Your task to perform on an android device: Show the shopping cart on costco.com. Add "energizer triple a" to the cart on costco.com Image 0: 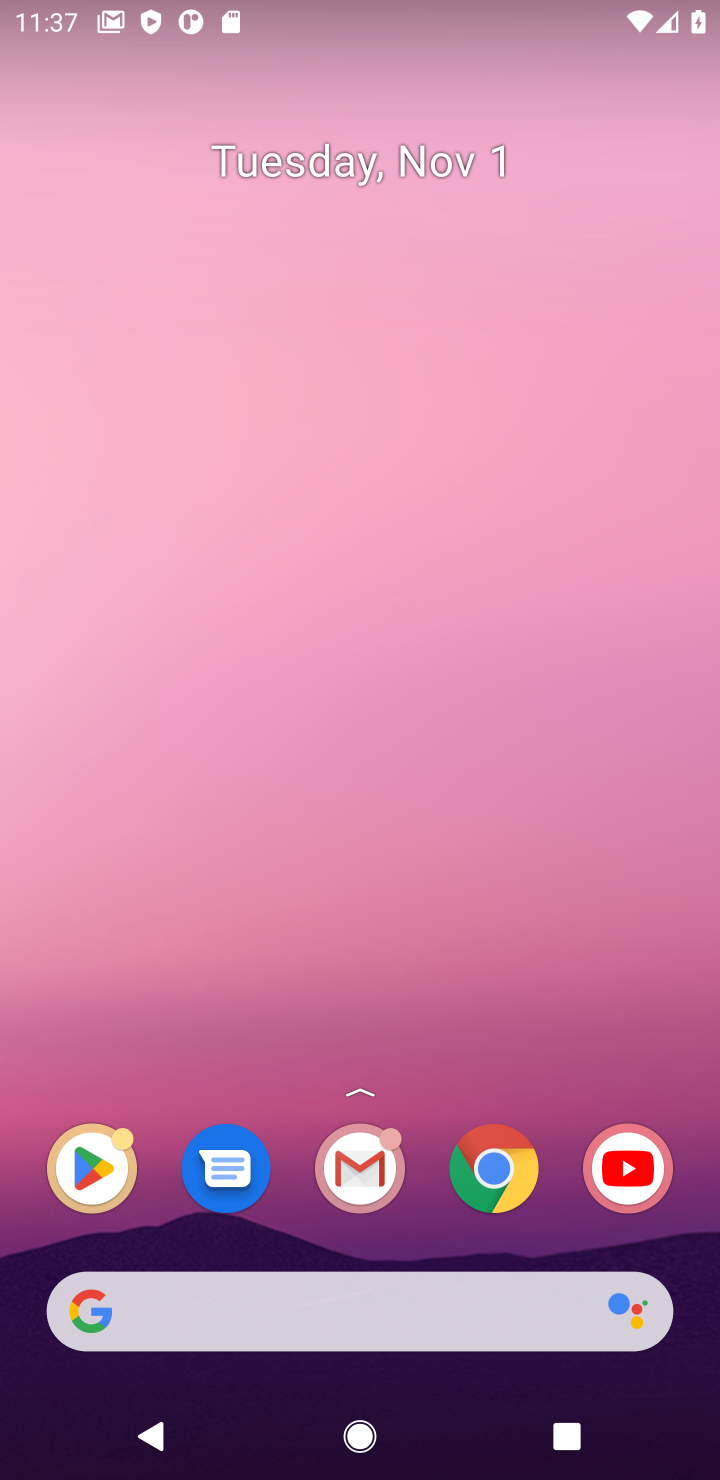
Step 0: click (494, 1183)
Your task to perform on an android device: Show the shopping cart on costco.com. Add "energizer triple a" to the cart on costco.com Image 1: 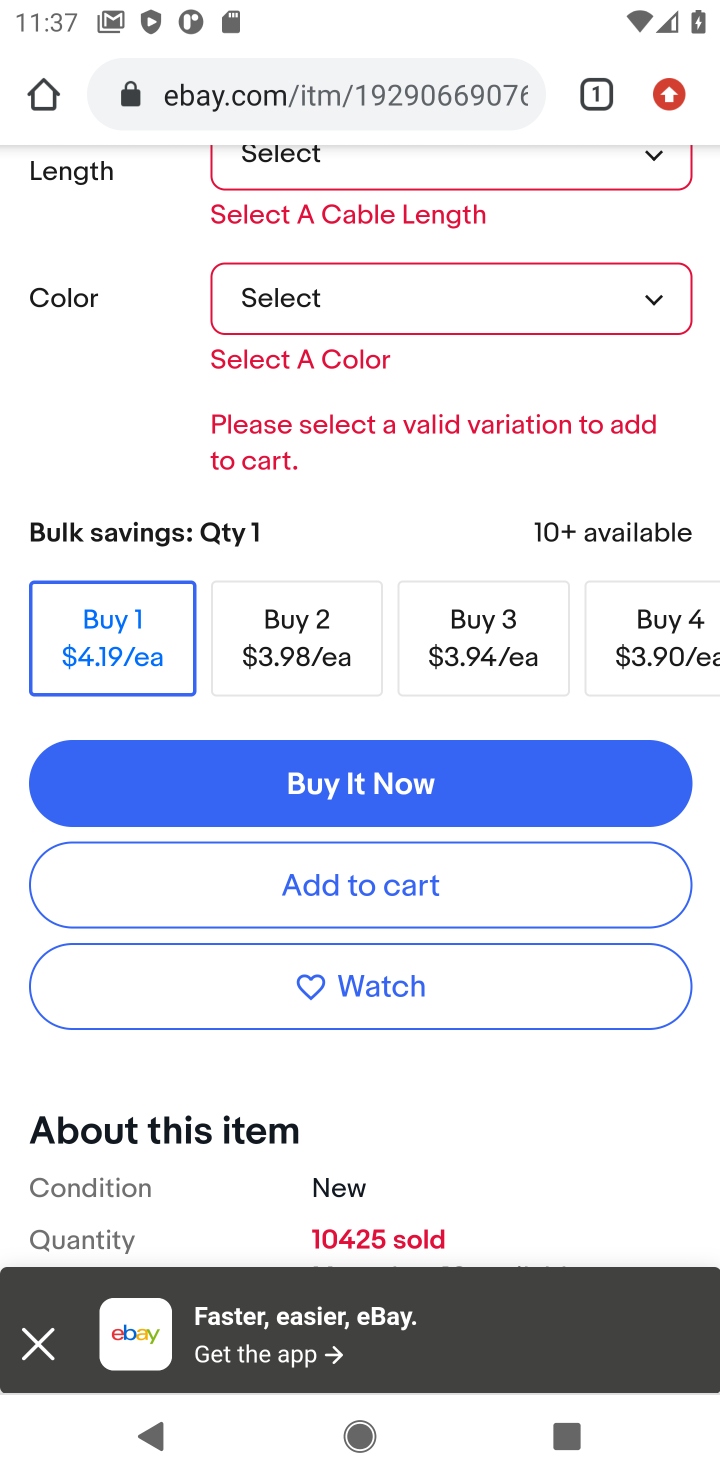
Step 1: click (405, 96)
Your task to perform on an android device: Show the shopping cart on costco.com. Add "energizer triple a" to the cart on costco.com Image 2: 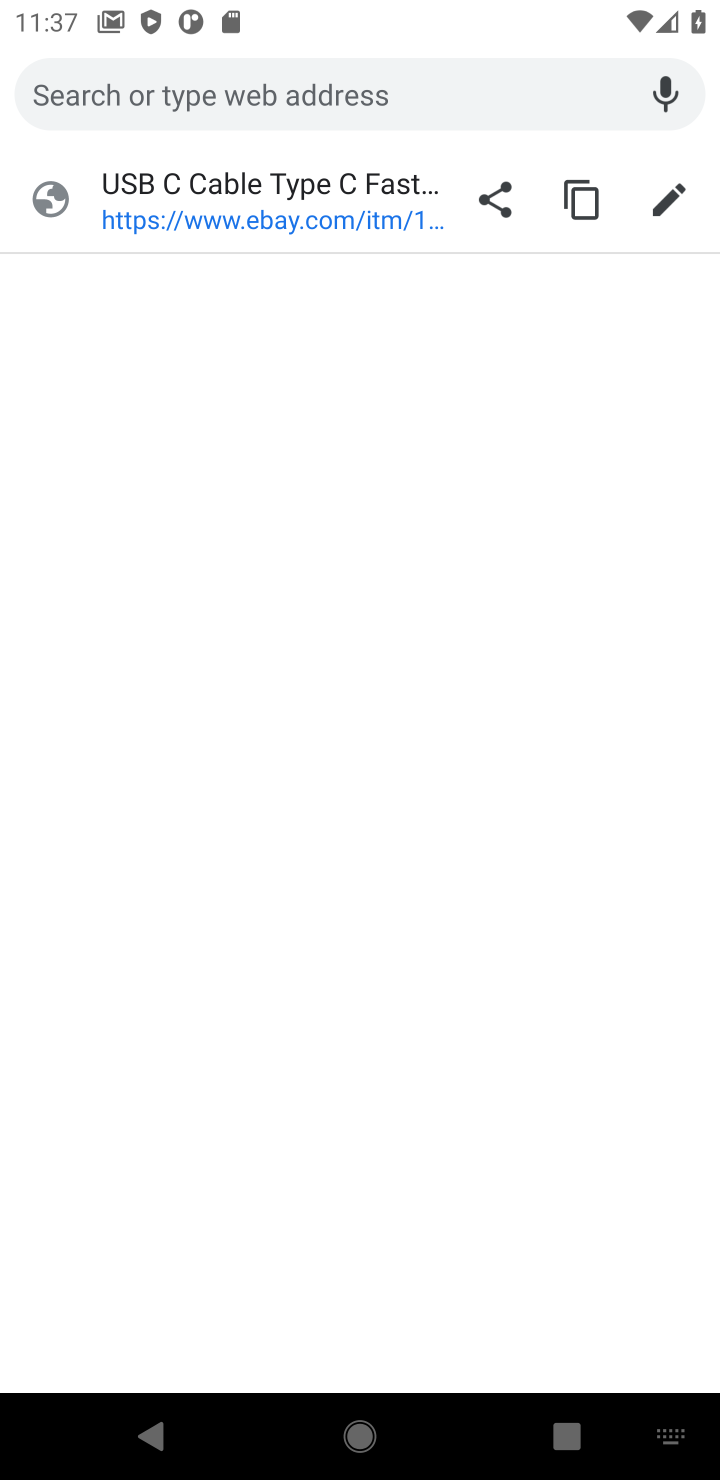
Step 2: type "costco.com"
Your task to perform on an android device: Show the shopping cart on costco.com. Add "energizer triple a" to the cart on costco.com Image 3: 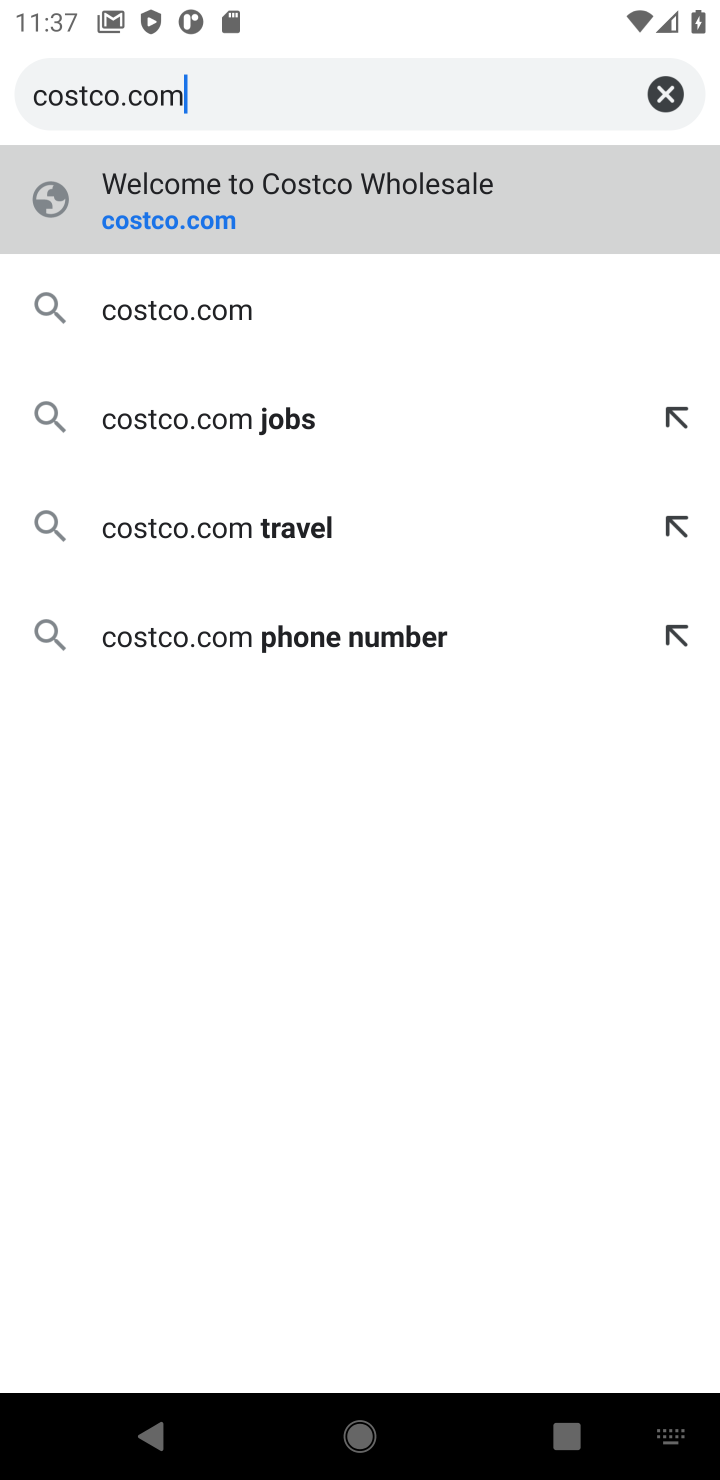
Step 3: click (208, 320)
Your task to perform on an android device: Show the shopping cart on costco.com. Add "energizer triple a" to the cart on costco.com Image 4: 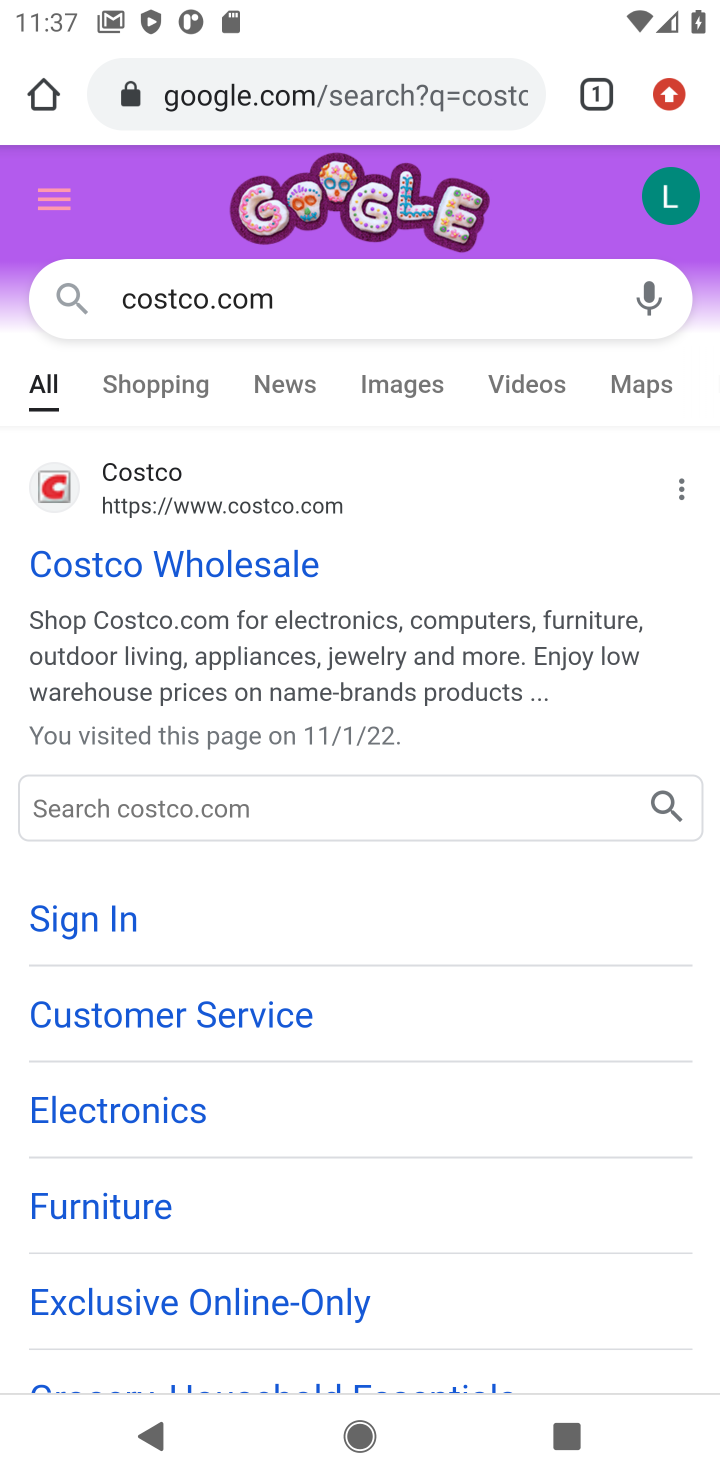
Step 4: click (225, 491)
Your task to perform on an android device: Show the shopping cart on costco.com. Add "energizer triple a" to the cart on costco.com Image 5: 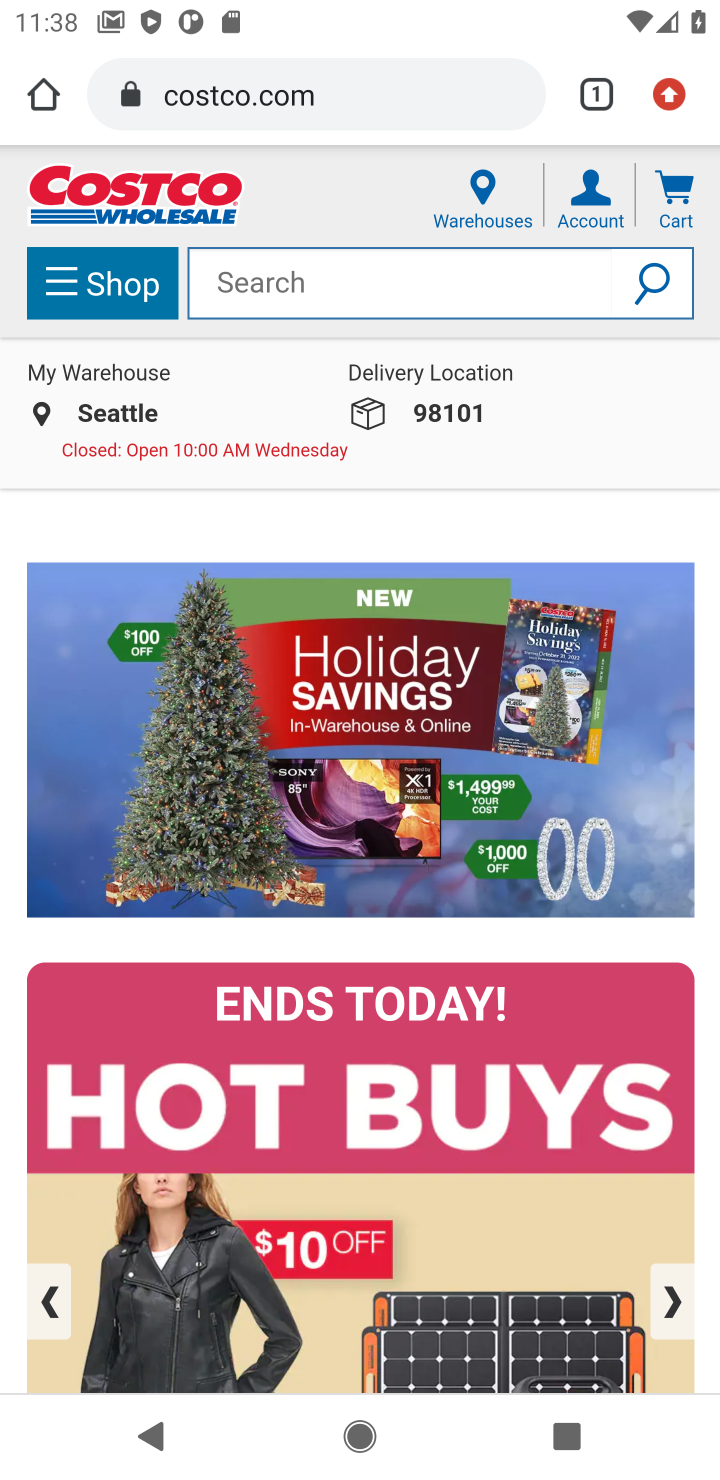
Step 5: click (442, 288)
Your task to perform on an android device: Show the shopping cart on costco.com. Add "energizer triple a" to the cart on costco.com Image 6: 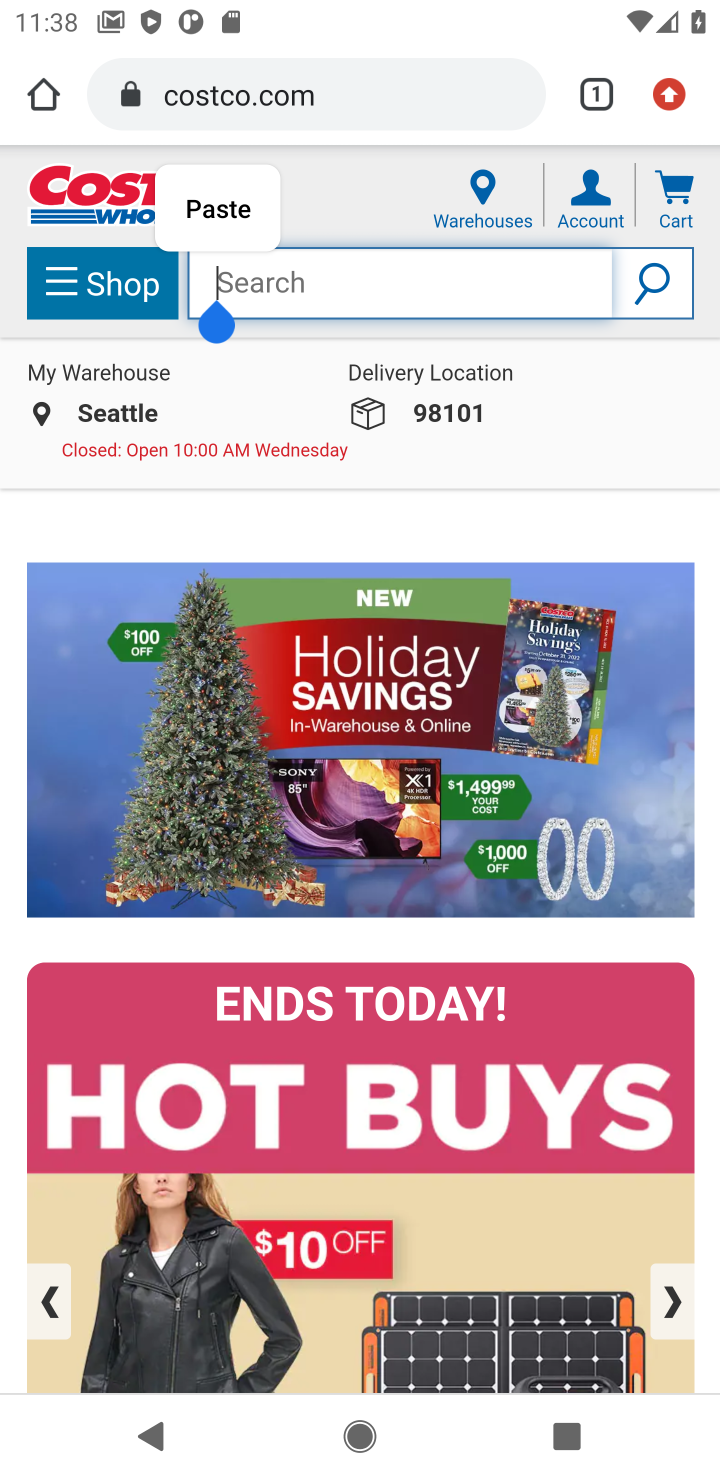
Step 6: type "energizer triple a"
Your task to perform on an android device: Show the shopping cart on costco.com. Add "energizer triple a" to the cart on costco.com Image 7: 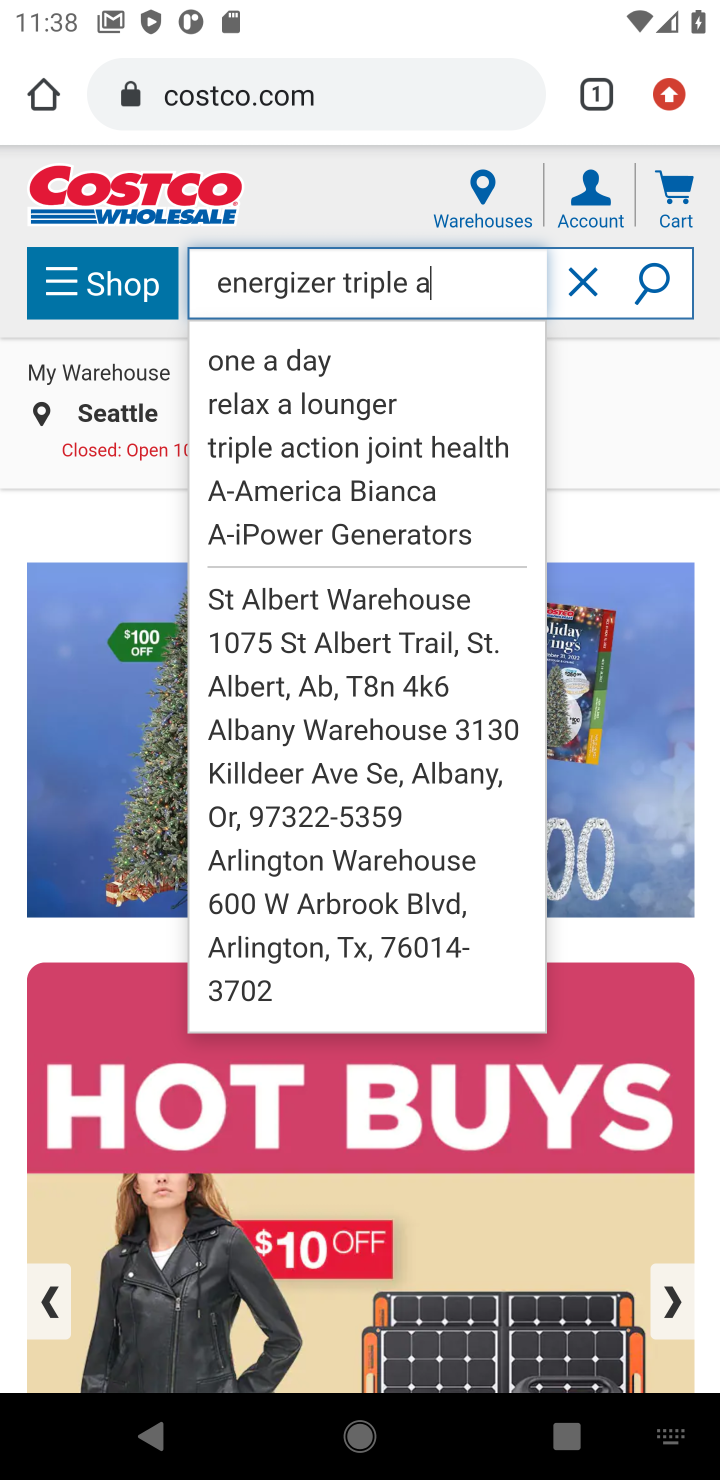
Step 7: click (643, 386)
Your task to perform on an android device: Show the shopping cart on costco.com. Add "energizer triple a" to the cart on costco.com Image 8: 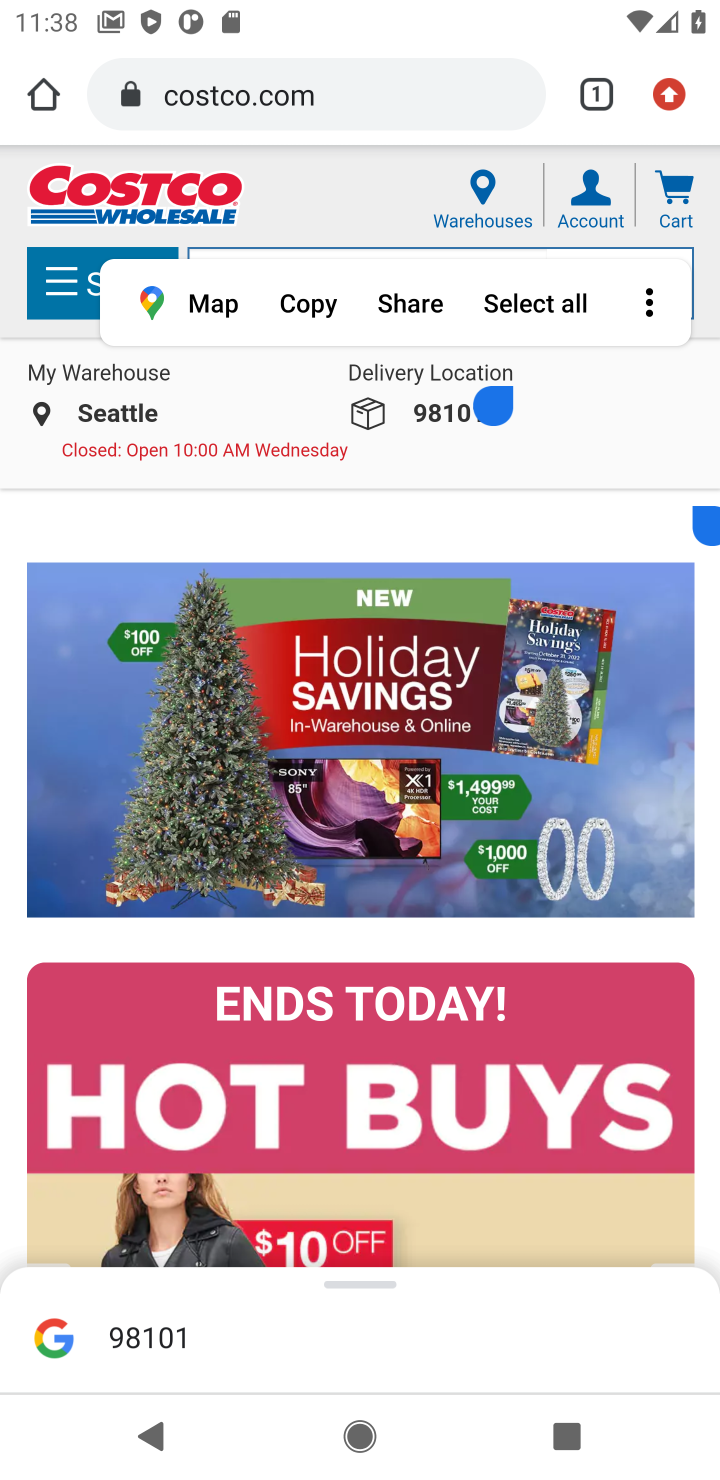
Step 8: click (681, 358)
Your task to perform on an android device: Show the shopping cart on costco.com. Add "energizer triple a" to the cart on costco.com Image 9: 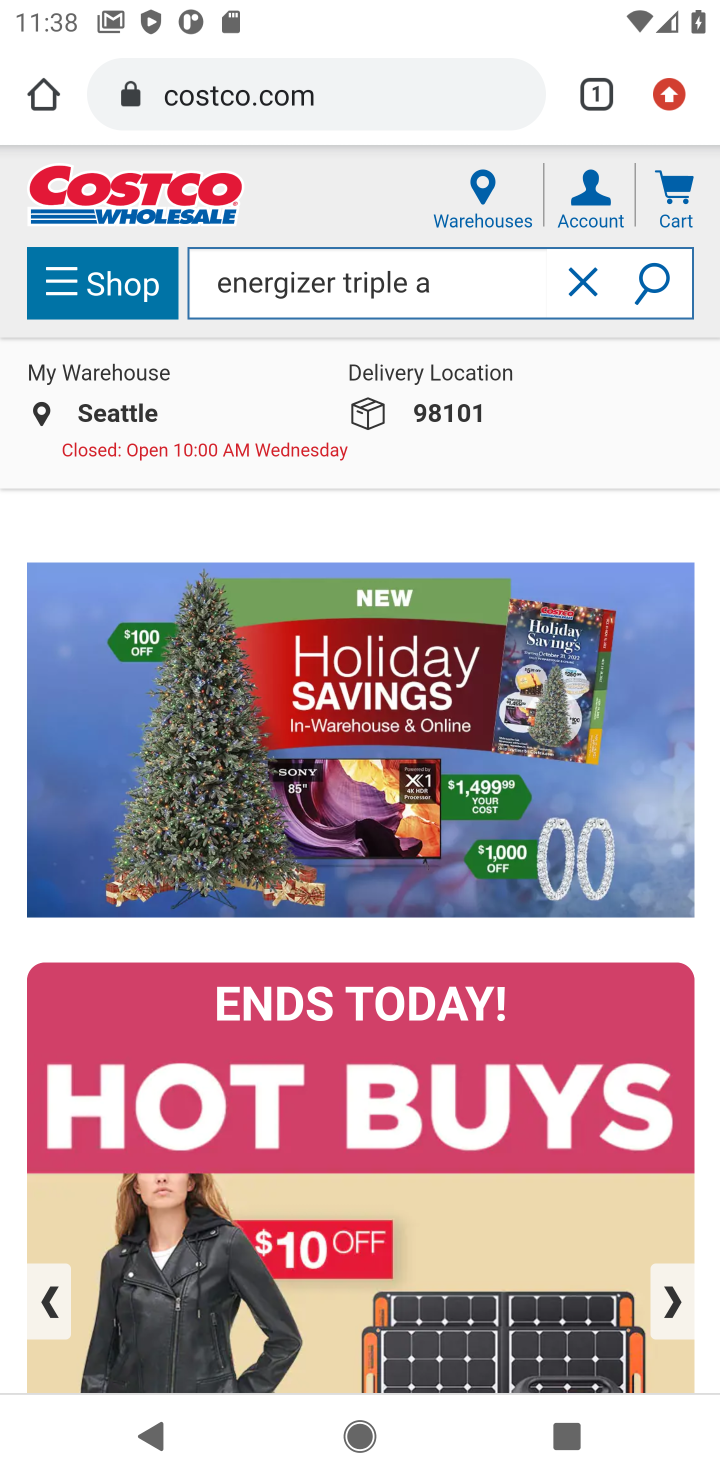
Step 9: click (478, 287)
Your task to perform on an android device: Show the shopping cart on costco.com. Add "energizer triple a" to the cart on costco.com Image 10: 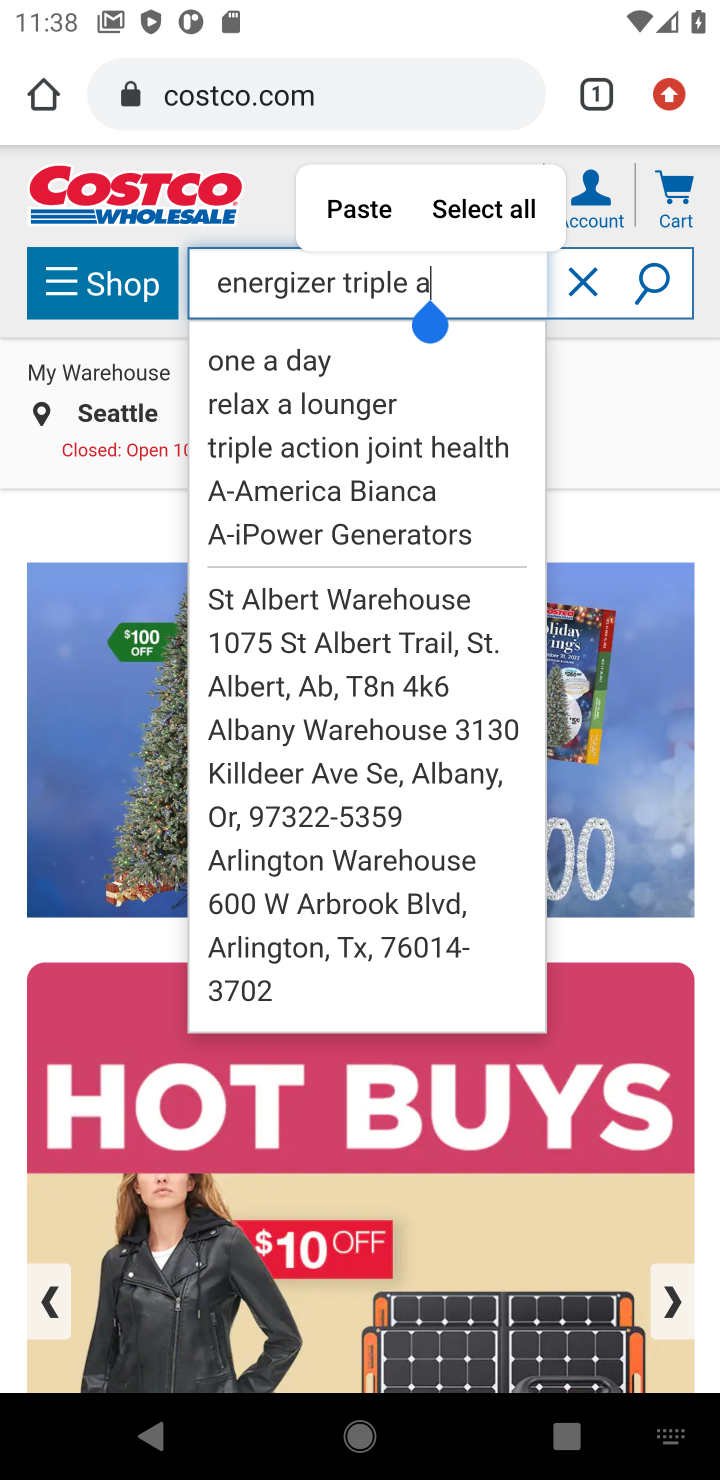
Step 10: click (672, 376)
Your task to perform on an android device: Show the shopping cart on costco.com. Add "energizer triple a" to the cart on costco.com Image 11: 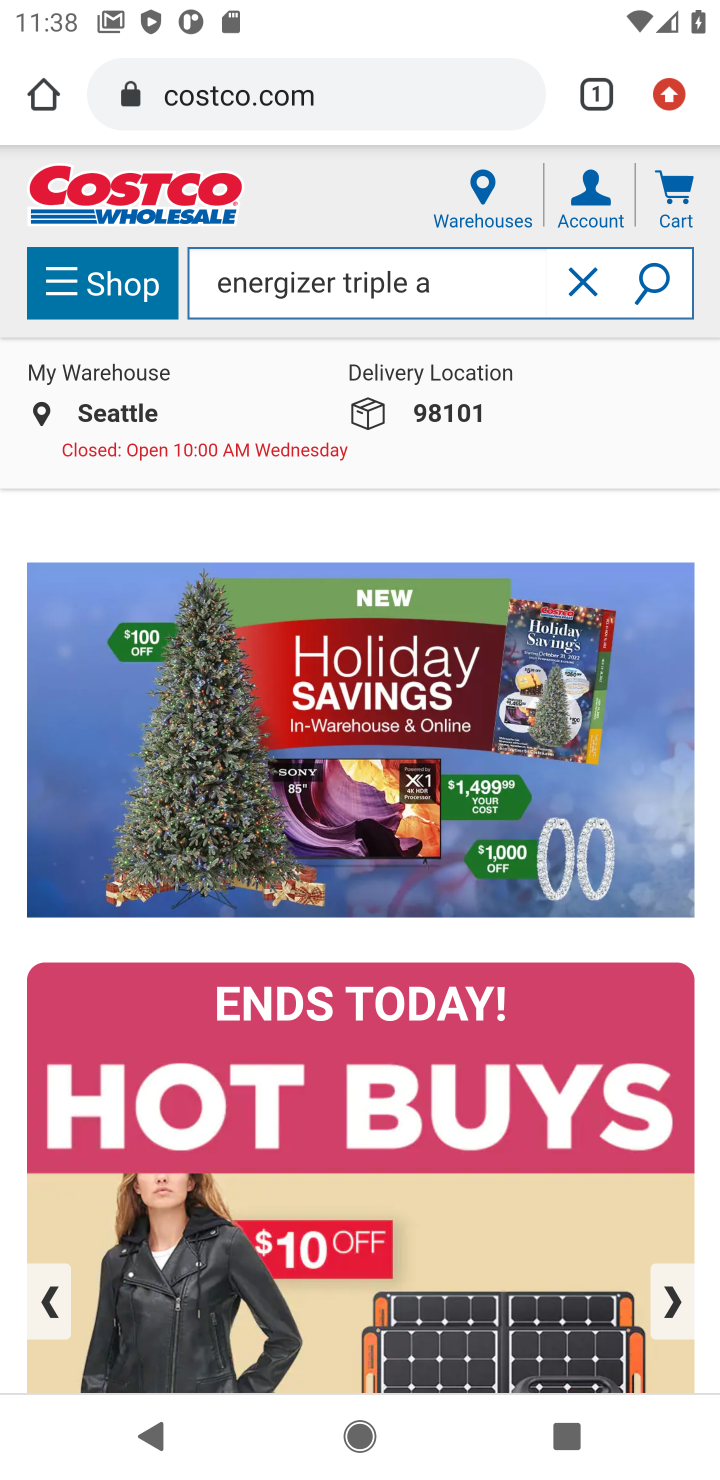
Step 11: click (582, 276)
Your task to perform on an android device: Show the shopping cart on costco.com. Add "energizer triple a" to the cart on costco.com Image 12: 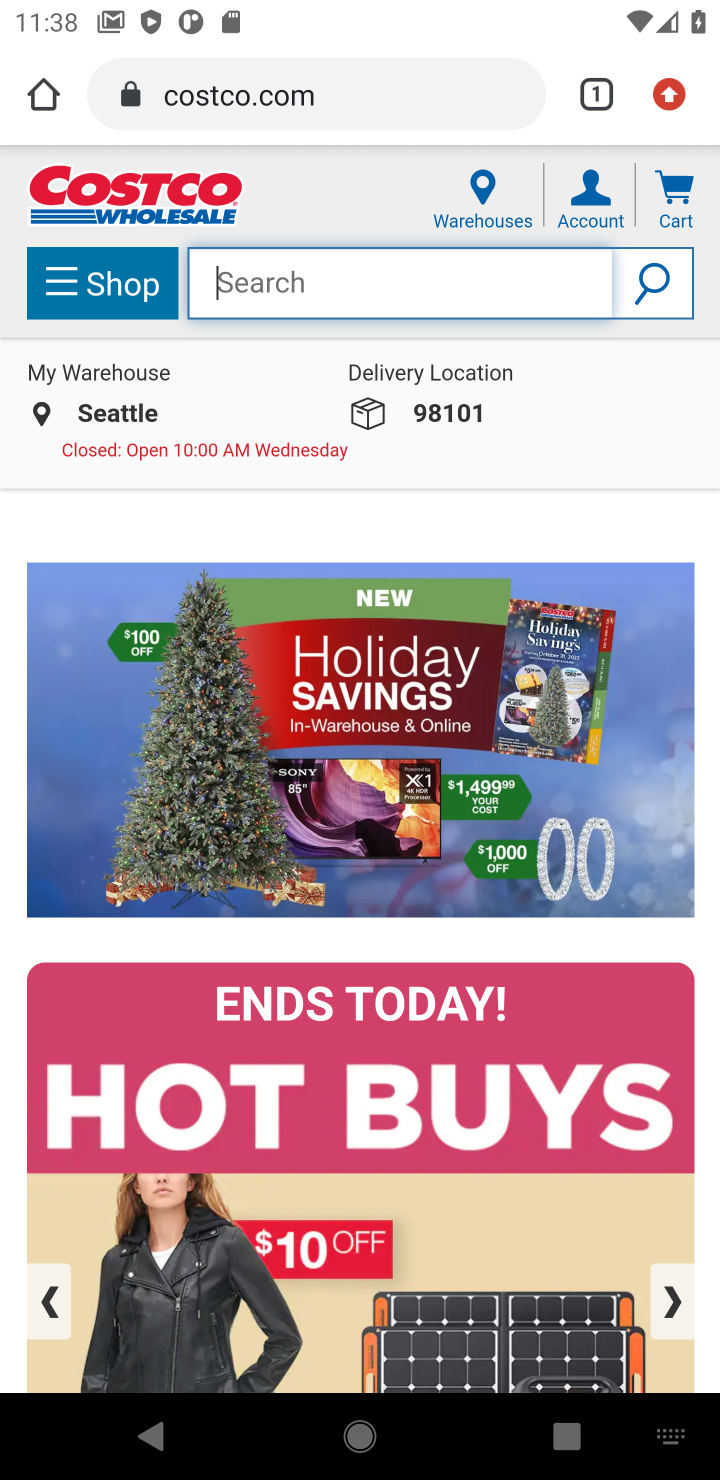
Step 12: type "energizer triple a"
Your task to perform on an android device: Show the shopping cart on costco.com. Add "energizer triple a" to the cart on costco.com Image 13: 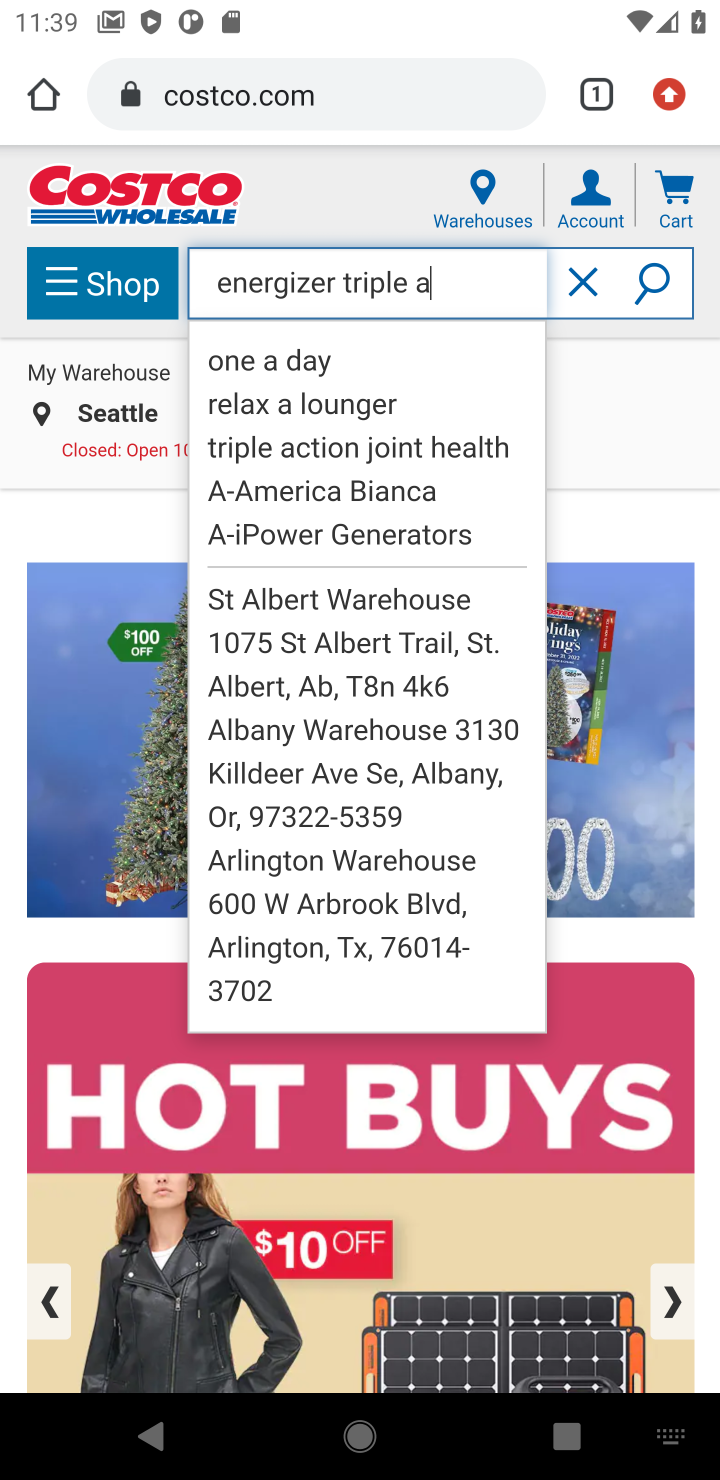
Step 13: task complete